Your task to perform on an android device: Open the phone app and click the voicemail tab. Image 0: 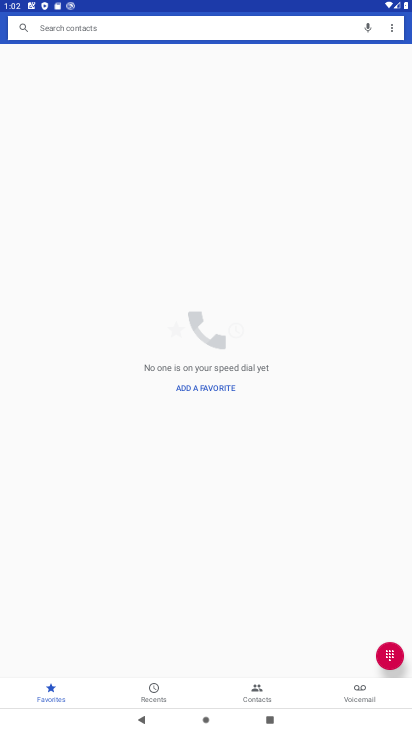
Step 0: drag from (286, 671) to (322, 32)
Your task to perform on an android device: Open the phone app and click the voicemail tab. Image 1: 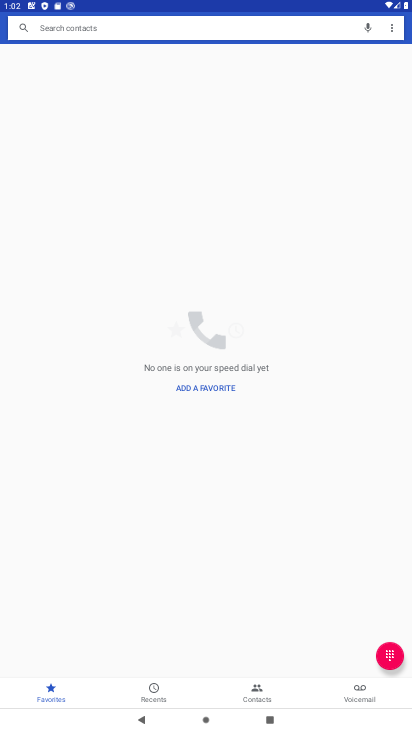
Step 1: click (371, 693)
Your task to perform on an android device: Open the phone app and click the voicemail tab. Image 2: 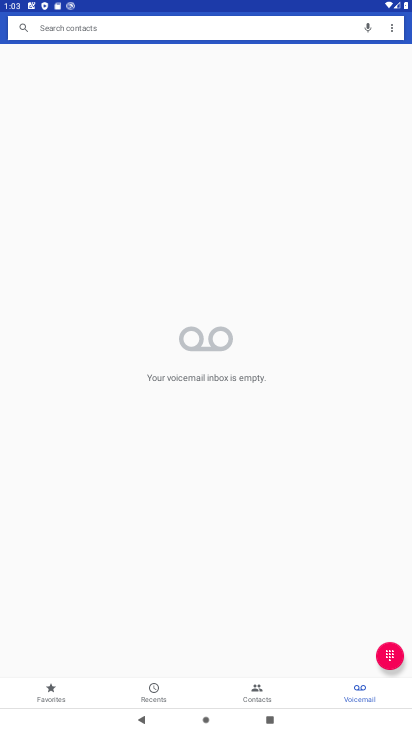
Step 2: task complete